Your task to perform on an android device: Open wifi settings Image 0: 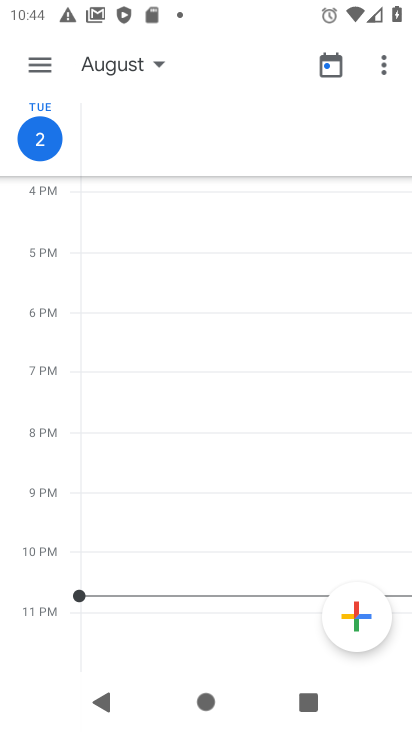
Step 0: press home button
Your task to perform on an android device: Open wifi settings Image 1: 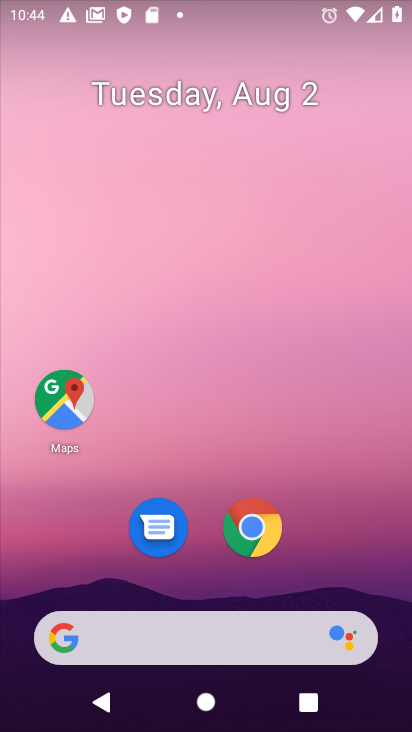
Step 1: drag from (197, 581) to (253, 16)
Your task to perform on an android device: Open wifi settings Image 2: 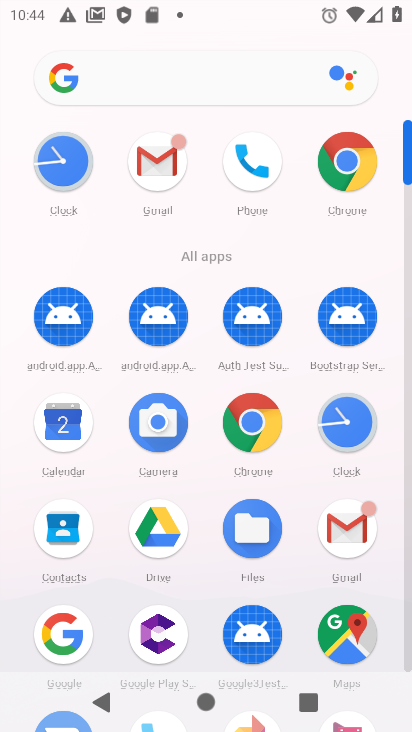
Step 2: drag from (201, 599) to (209, 17)
Your task to perform on an android device: Open wifi settings Image 3: 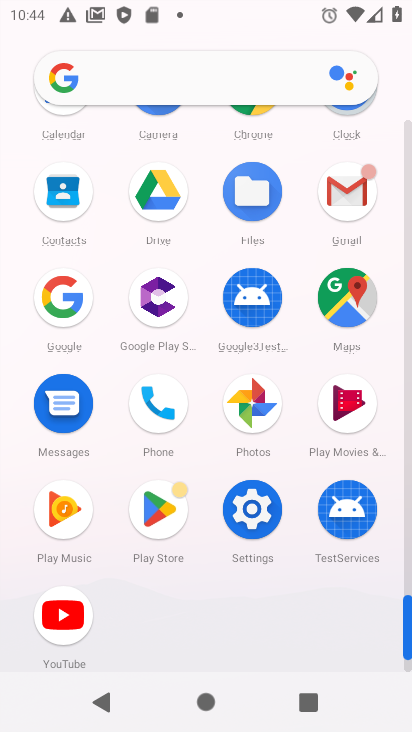
Step 3: click (248, 499)
Your task to perform on an android device: Open wifi settings Image 4: 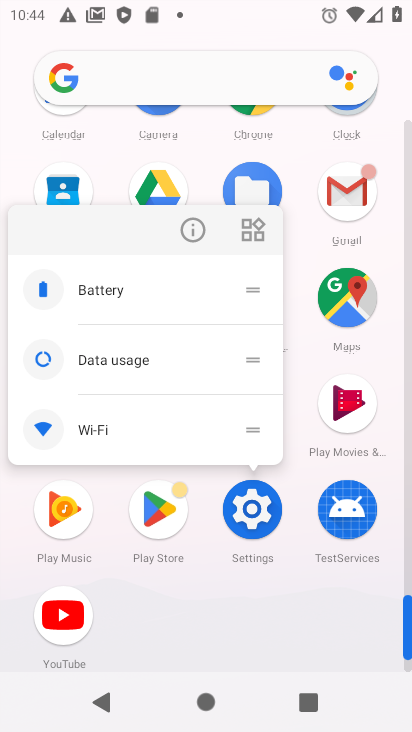
Step 4: click (249, 503)
Your task to perform on an android device: Open wifi settings Image 5: 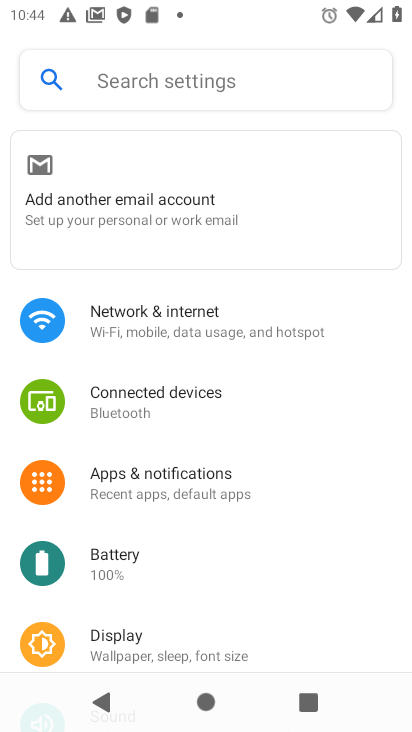
Step 5: click (178, 321)
Your task to perform on an android device: Open wifi settings Image 6: 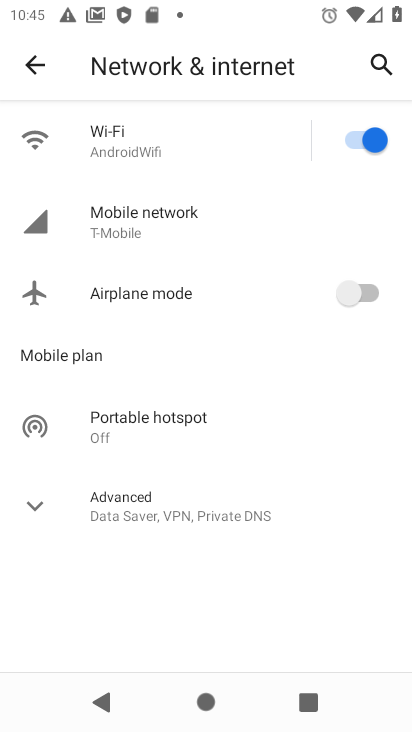
Step 6: click (228, 135)
Your task to perform on an android device: Open wifi settings Image 7: 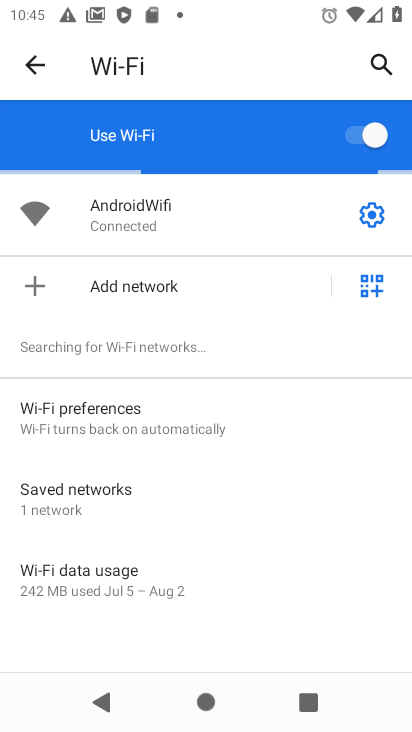
Step 7: task complete